Your task to perform on an android device: turn on the 24-hour format for clock Image 0: 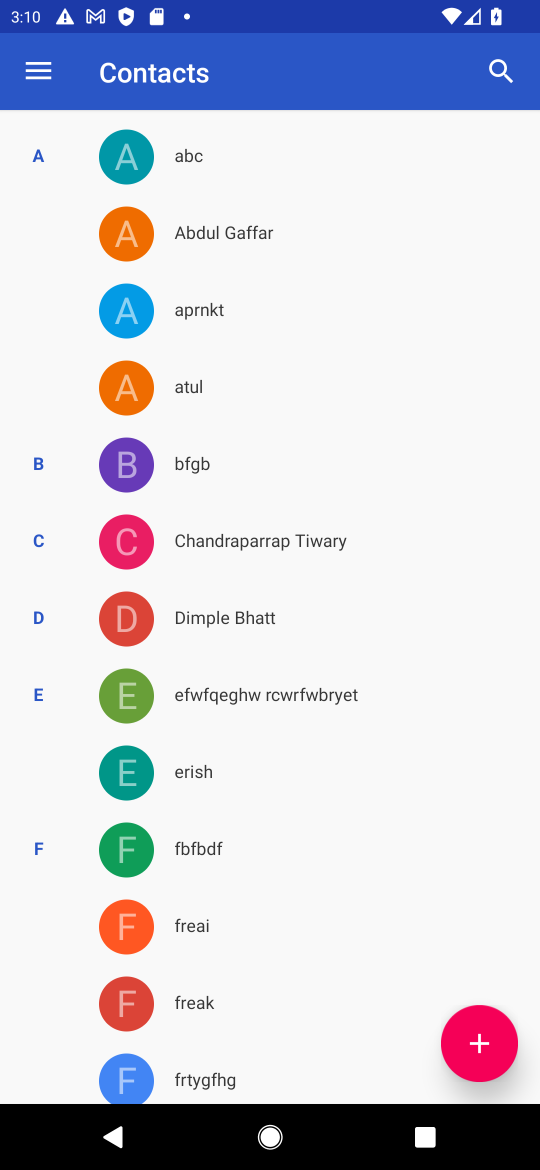
Step 0: press home button
Your task to perform on an android device: turn on the 24-hour format for clock Image 1: 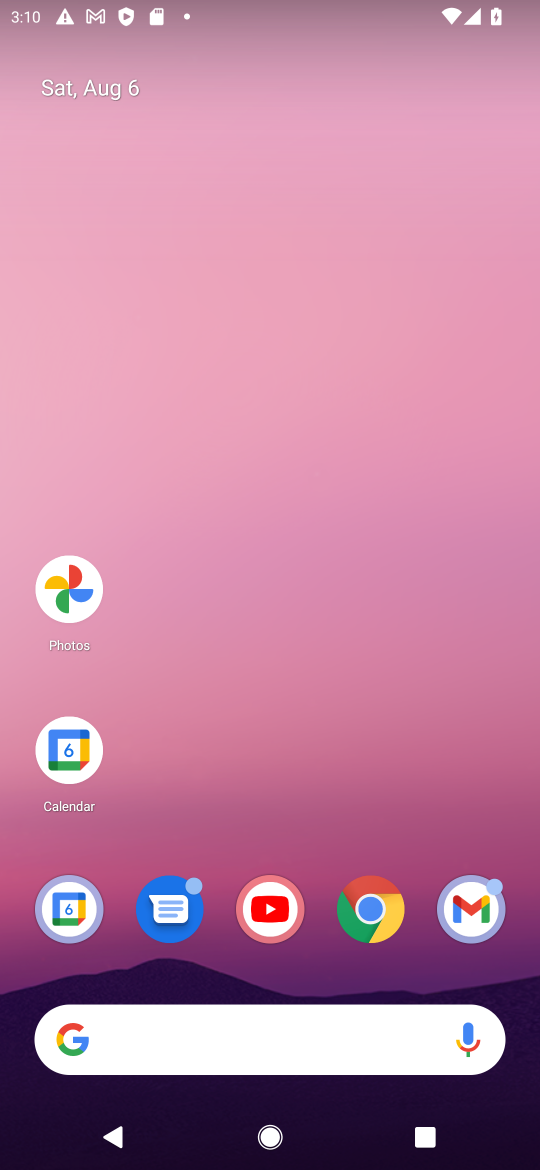
Step 1: drag from (250, 780) to (291, 25)
Your task to perform on an android device: turn on the 24-hour format for clock Image 2: 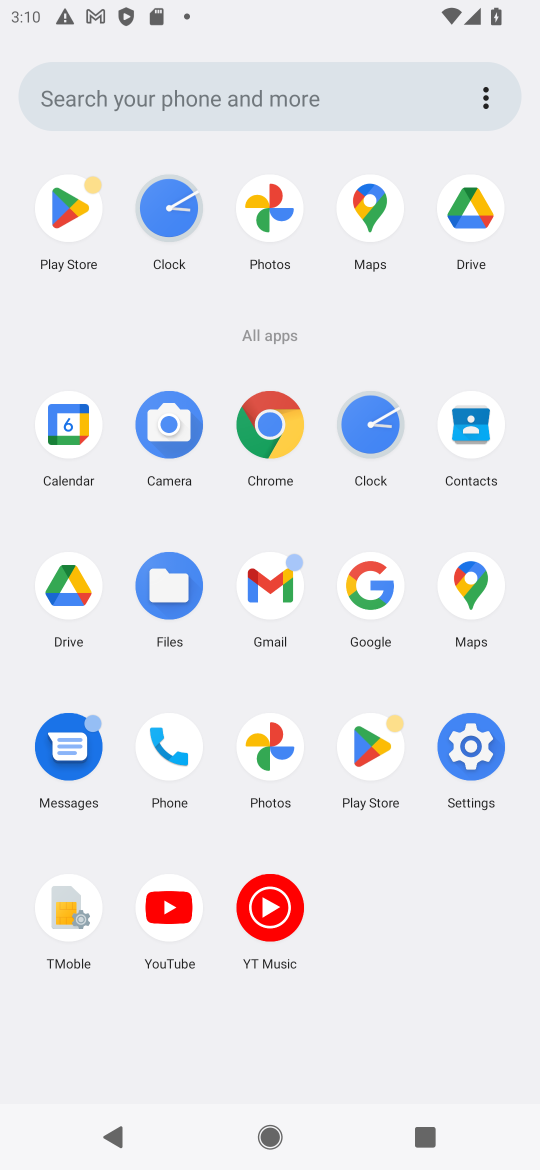
Step 2: click (161, 185)
Your task to perform on an android device: turn on the 24-hour format for clock Image 3: 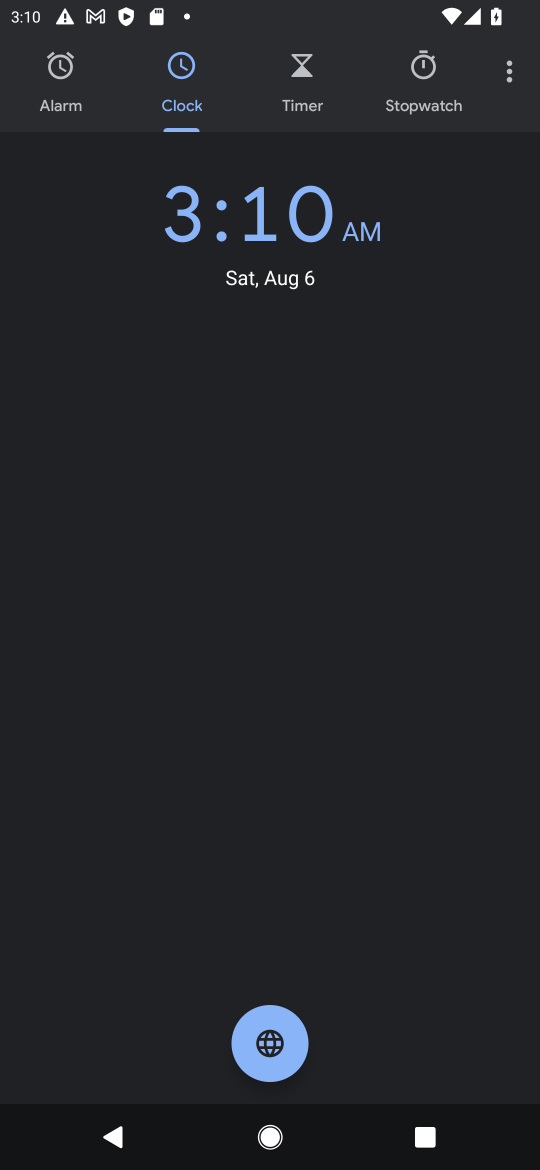
Step 3: click (510, 71)
Your task to perform on an android device: turn on the 24-hour format for clock Image 4: 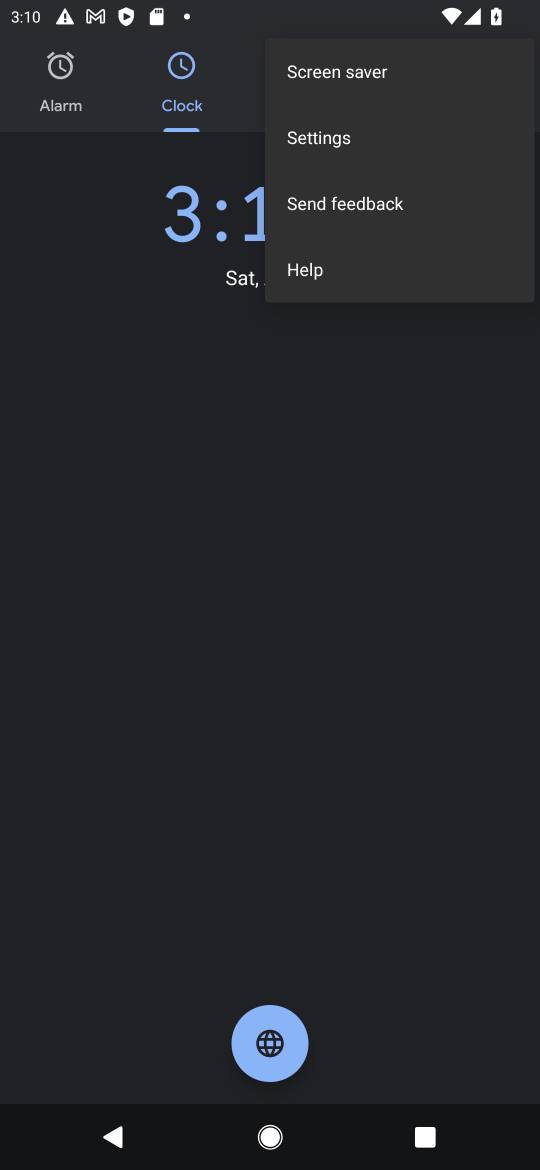
Step 4: click (335, 144)
Your task to perform on an android device: turn on the 24-hour format for clock Image 5: 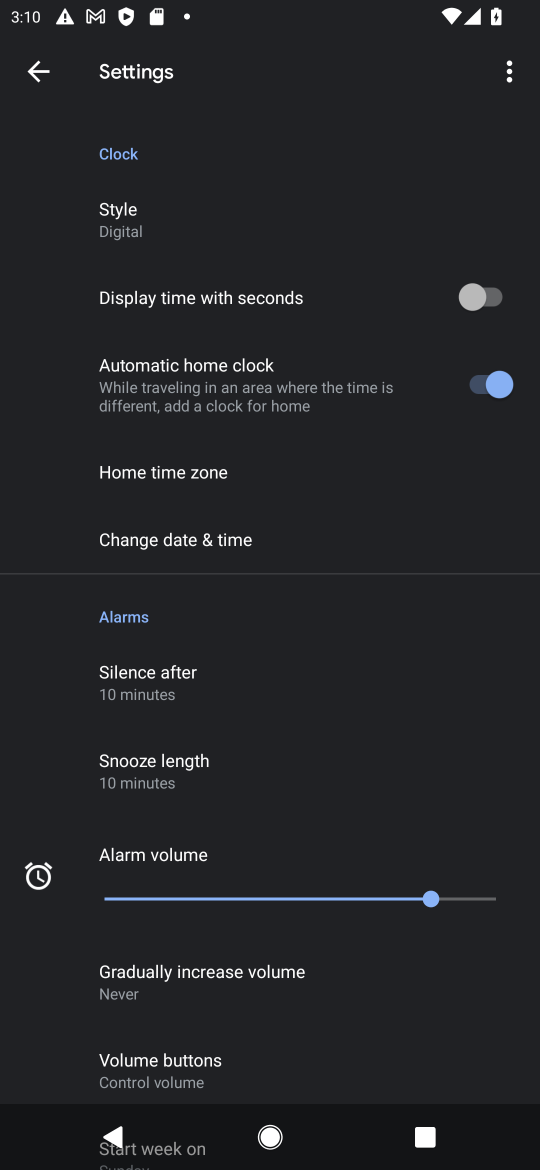
Step 5: click (193, 540)
Your task to perform on an android device: turn on the 24-hour format for clock Image 6: 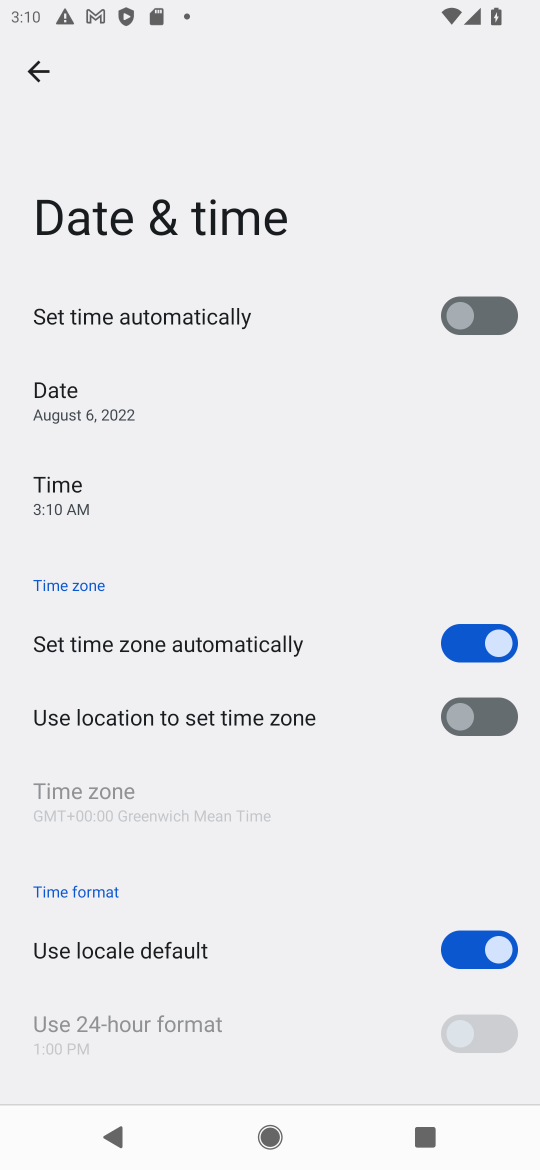
Step 6: click (491, 941)
Your task to perform on an android device: turn on the 24-hour format for clock Image 7: 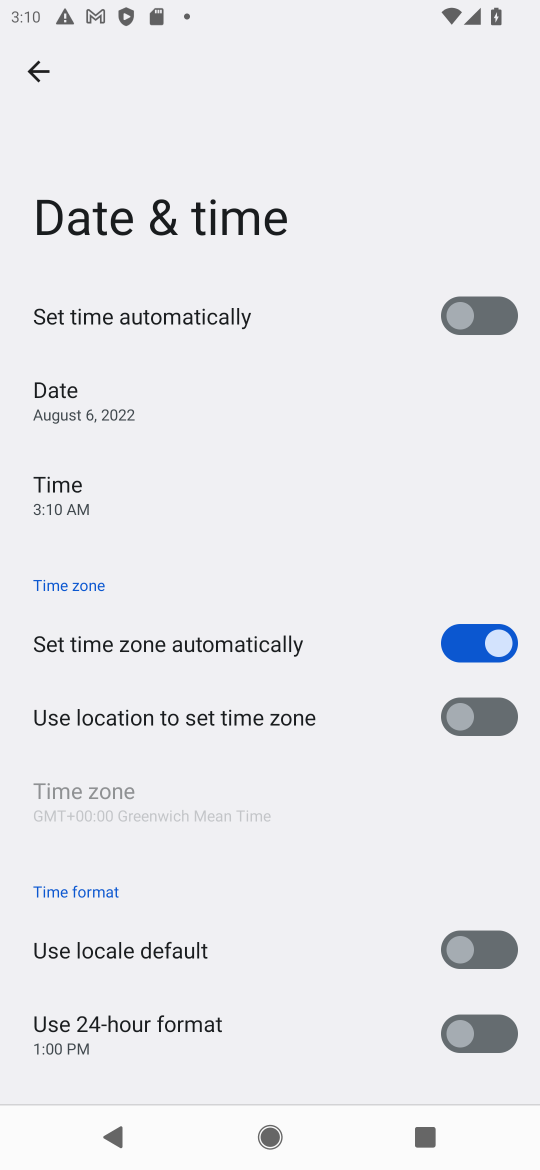
Step 7: click (456, 1045)
Your task to perform on an android device: turn on the 24-hour format for clock Image 8: 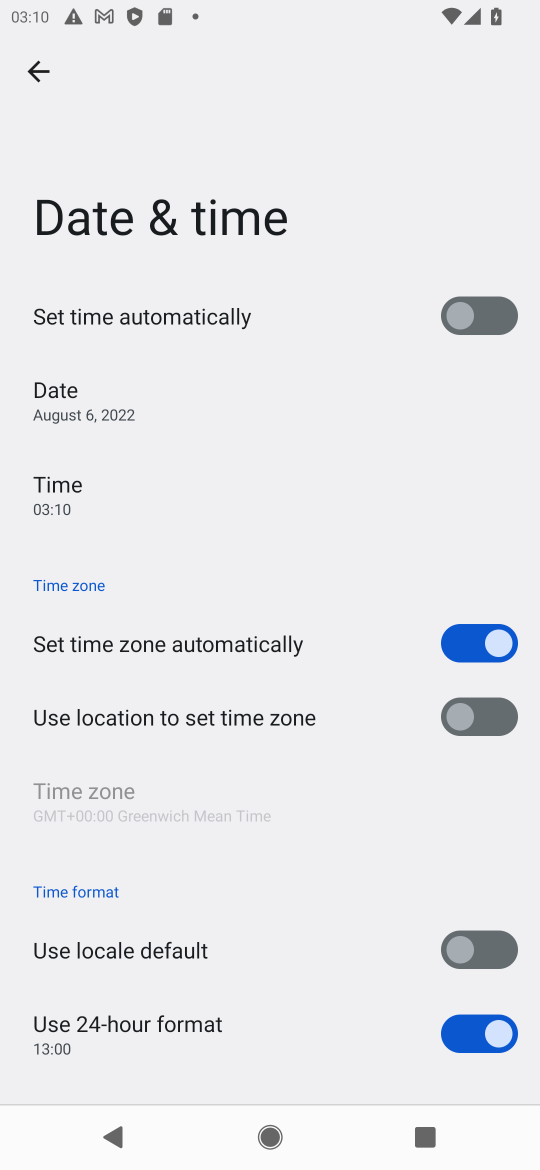
Step 8: task complete